Your task to perform on an android device: Open privacy settings Image 0: 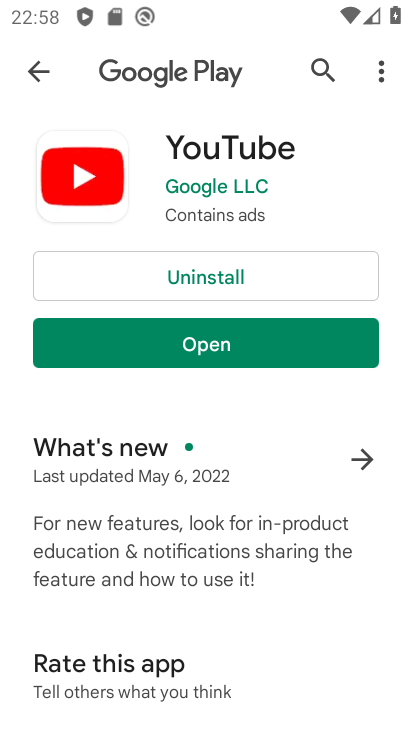
Step 0: press home button
Your task to perform on an android device: Open privacy settings Image 1: 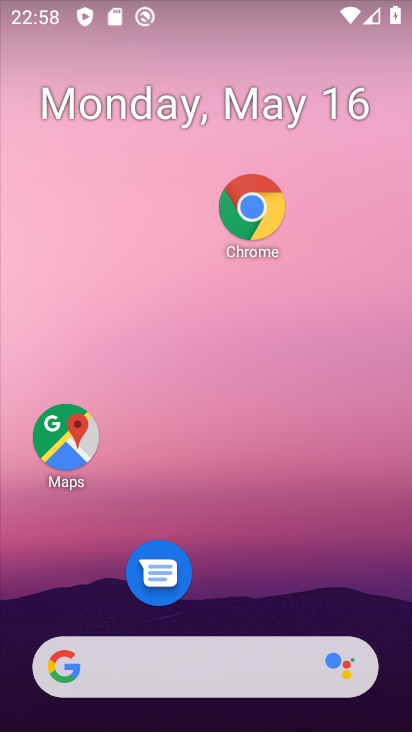
Step 1: drag from (245, 643) to (311, 114)
Your task to perform on an android device: Open privacy settings Image 2: 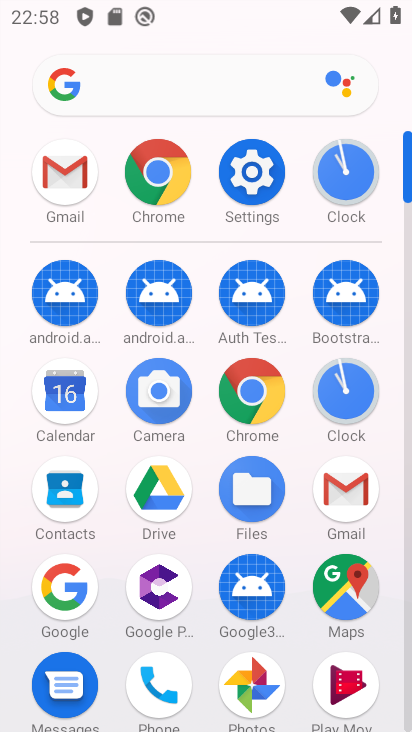
Step 2: click (265, 169)
Your task to perform on an android device: Open privacy settings Image 3: 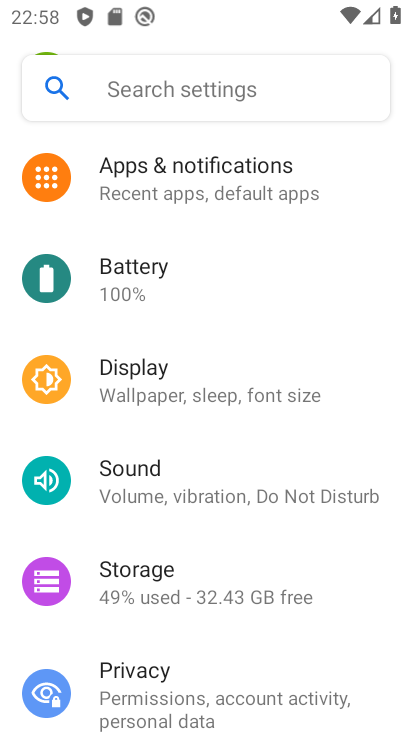
Step 3: click (163, 700)
Your task to perform on an android device: Open privacy settings Image 4: 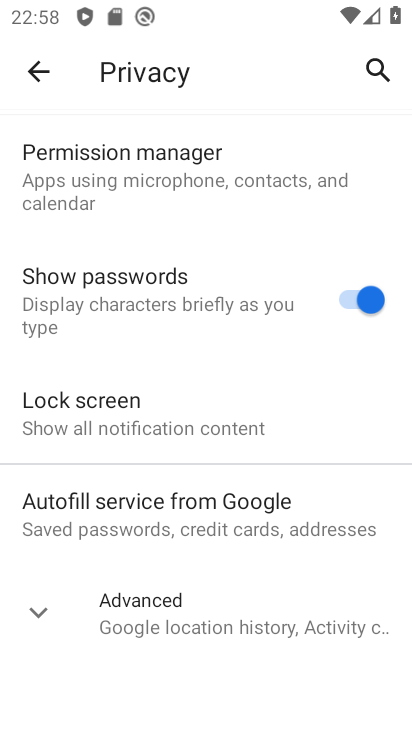
Step 4: task complete